Your task to perform on an android device: see sites visited before in the chrome app Image 0: 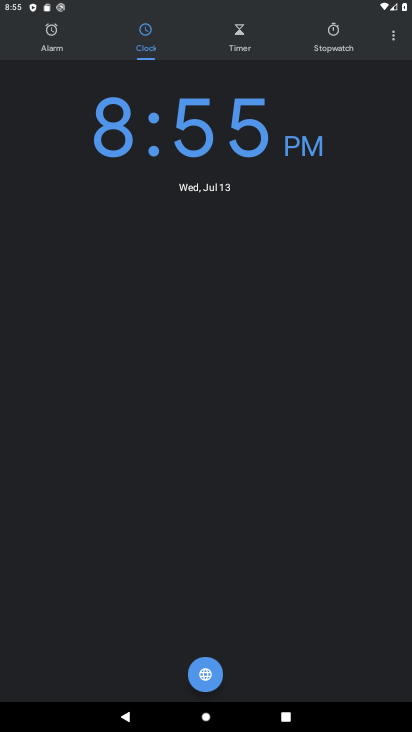
Step 0: press home button
Your task to perform on an android device: see sites visited before in the chrome app Image 1: 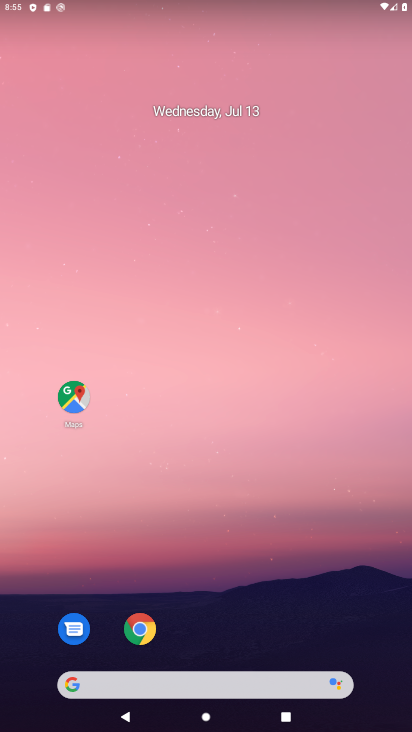
Step 1: click (128, 630)
Your task to perform on an android device: see sites visited before in the chrome app Image 2: 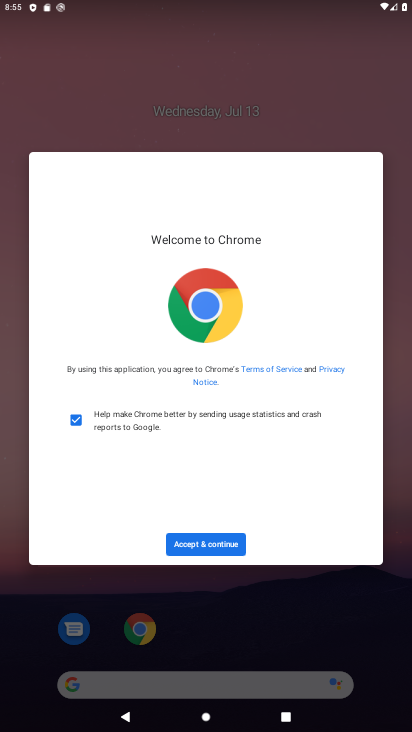
Step 2: click (184, 551)
Your task to perform on an android device: see sites visited before in the chrome app Image 3: 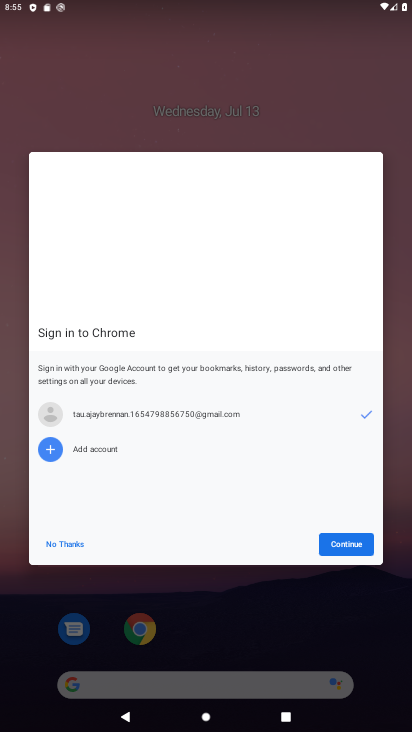
Step 3: click (349, 537)
Your task to perform on an android device: see sites visited before in the chrome app Image 4: 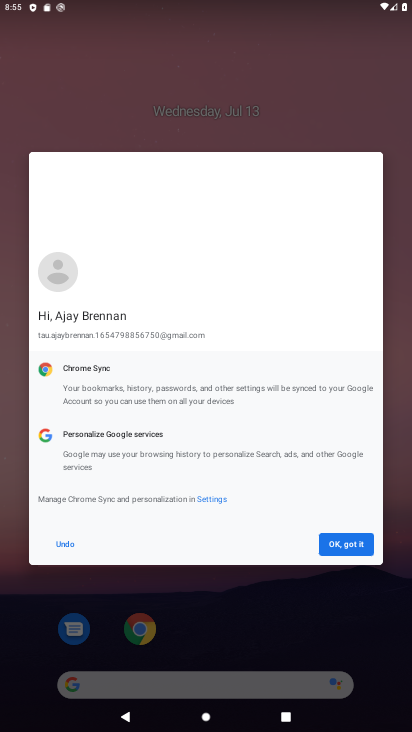
Step 4: click (349, 537)
Your task to perform on an android device: see sites visited before in the chrome app Image 5: 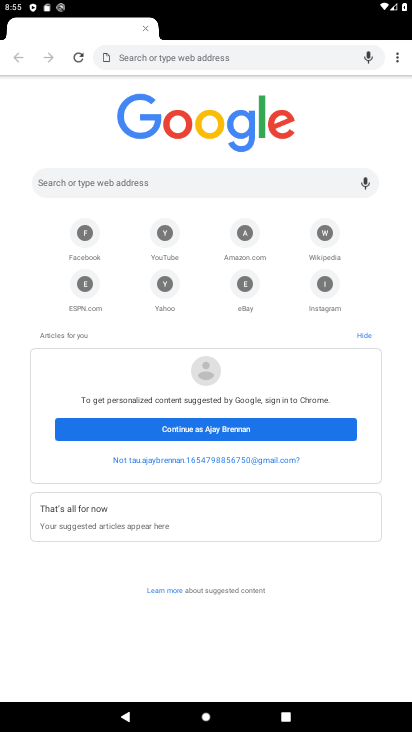
Step 5: click (400, 56)
Your task to perform on an android device: see sites visited before in the chrome app Image 6: 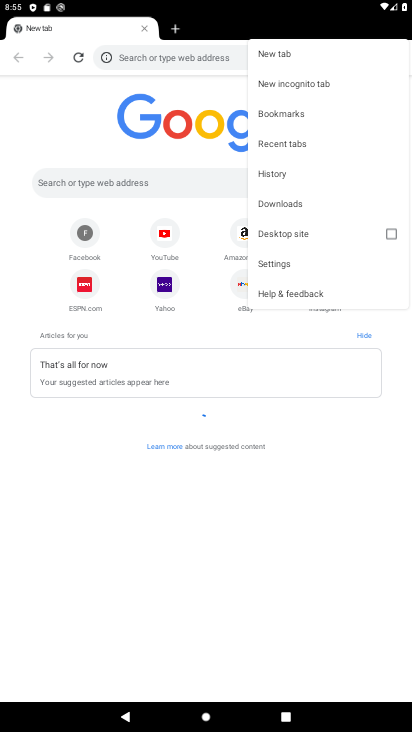
Step 6: click (262, 171)
Your task to perform on an android device: see sites visited before in the chrome app Image 7: 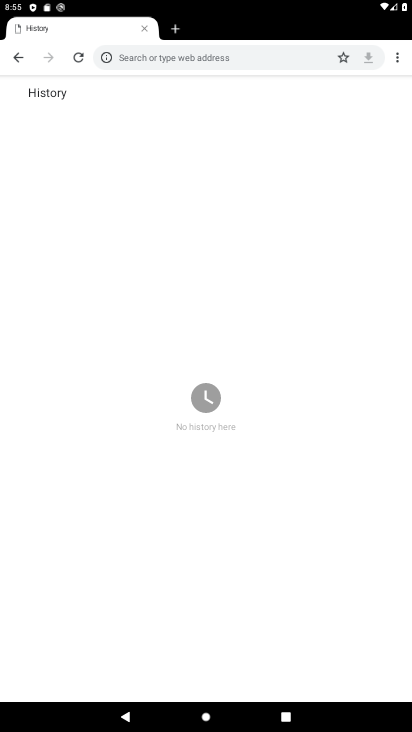
Step 7: task complete